Your task to perform on an android device: Open the calendar and show me this week's events? Image 0: 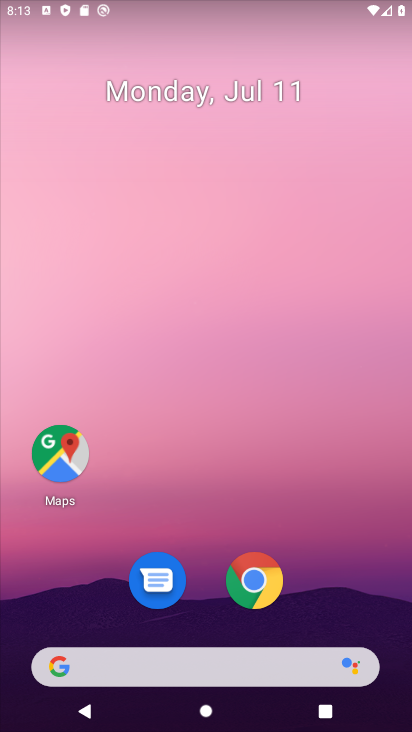
Step 0: drag from (384, 637) to (226, 114)
Your task to perform on an android device: Open the calendar and show me this week's events? Image 1: 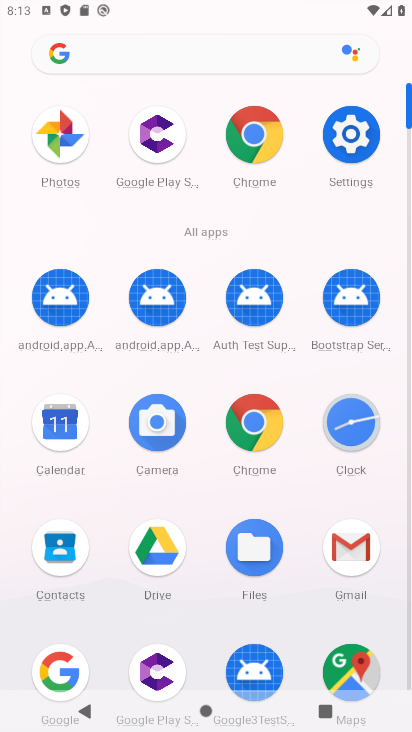
Step 1: click (51, 427)
Your task to perform on an android device: Open the calendar and show me this week's events? Image 2: 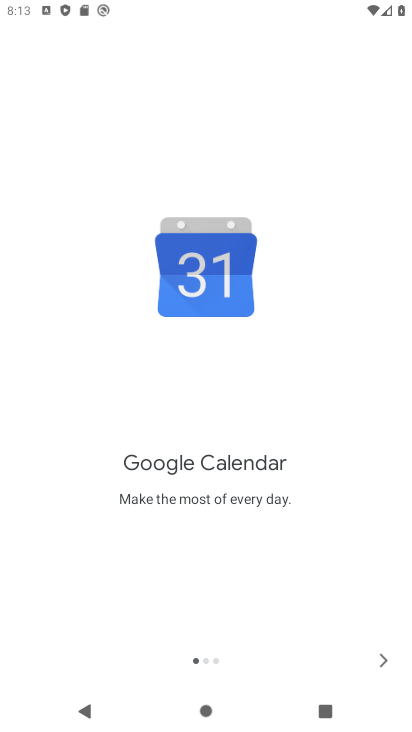
Step 2: click (387, 649)
Your task to perform on an android device: Open the calendar and show me this week's events? Image 3: 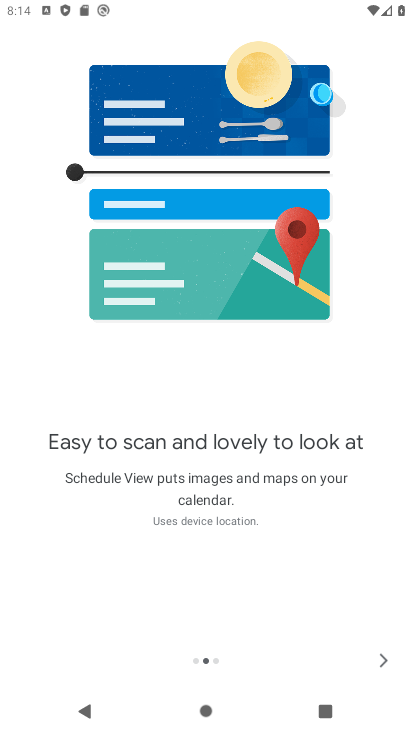
Step 3: click (376, 663)
Your task to perform on an android device: Open the calendar and show me this week's events? Image 4: 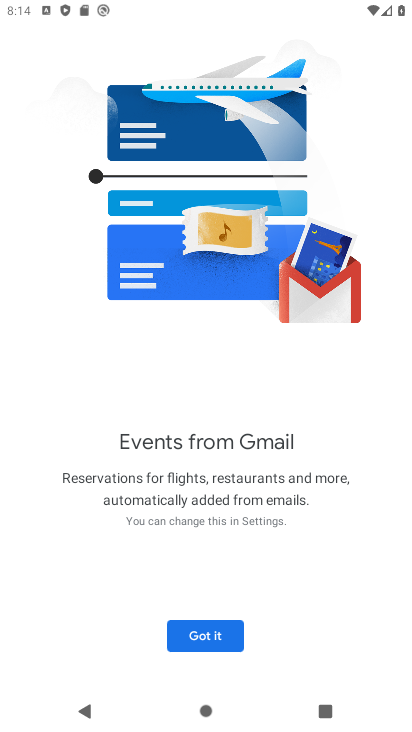
Step 4: click (376, 663)
Your task to perform on an android device: Open the calendar and show me this week's events? Image 5: 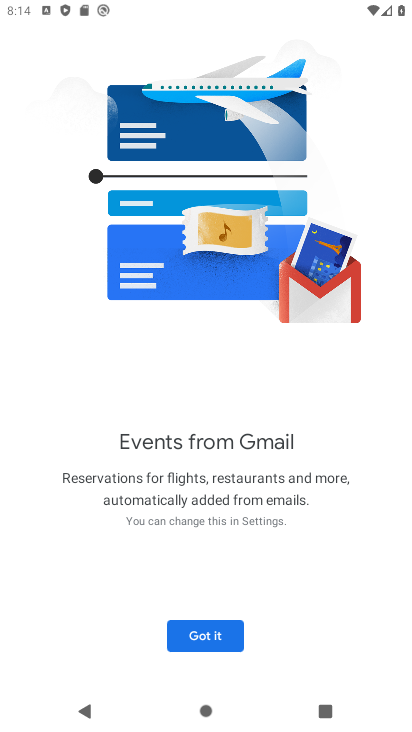
Step 5: click (216, 629)
Your task to perform on an android device: Open the calendar and show me this week's events? Image 6: 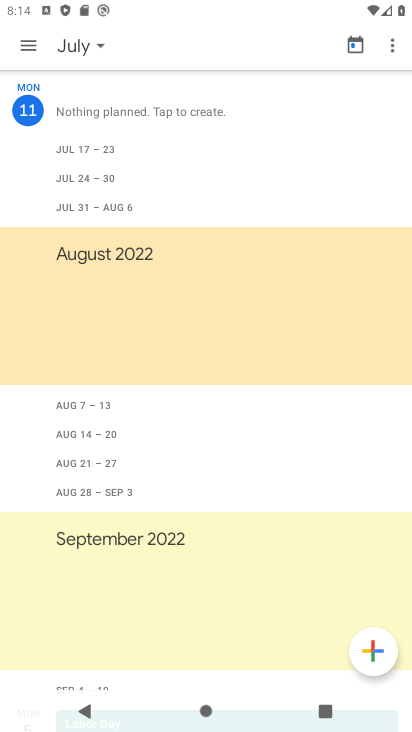
Step 6: task complete